Your task to perform on an android device: Open the phone app and click the voicemail tab. Image 0: 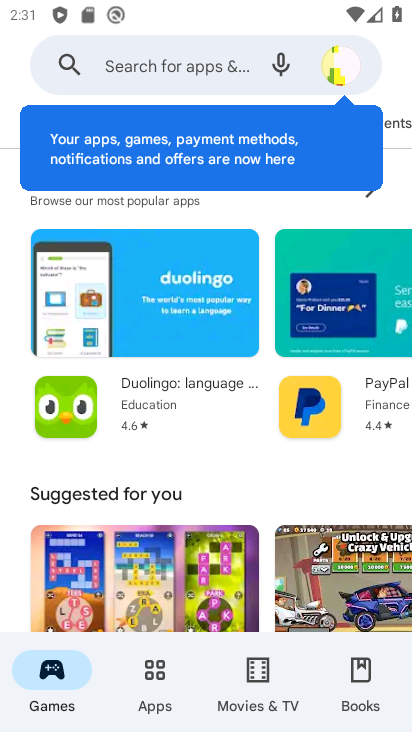
Step 0: press home button
Your task to perform on an android device: Open the phone app and click the voicemail tab. Image 1: 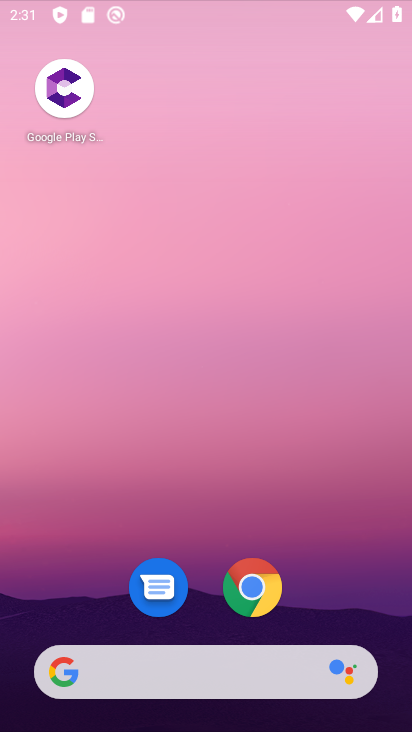
Step 1: drag from (250, 657) to (294, 85)
Your task to perform on an android device: Open the phone app and click the voicemail tab. Image 2: 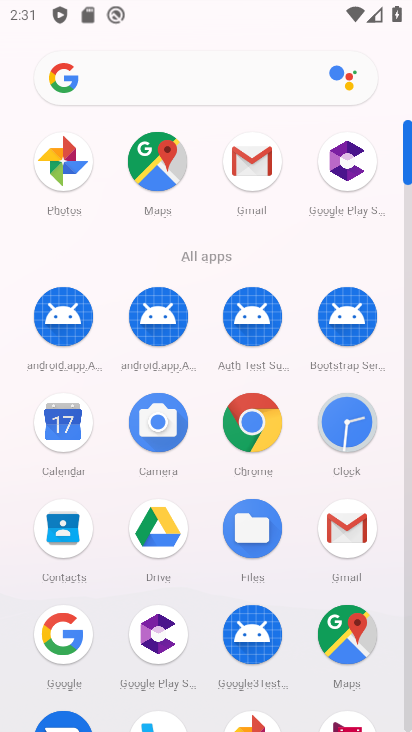
Step 2: drag from (191, 628) to (242, 278)
Your task to perform on an android device: Open the phone app and click the voicemail tab. Image 3: 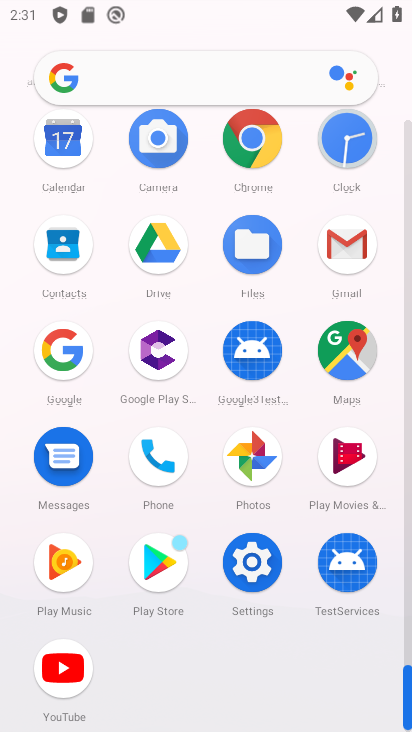
Step 3: click (156, 463)
Your task to perform on an android device: Open the phone app and click the voicemail tab. Image 4: 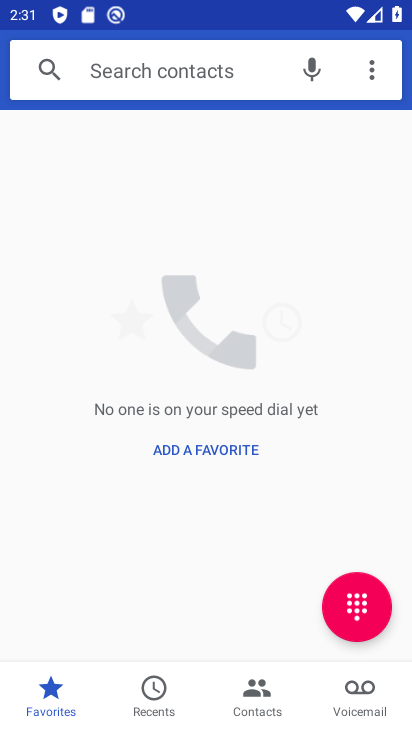
Step 4: click (350, 692)
Your task to perform on an android device: Open the phone app and click the voicemail tab. Image 5: 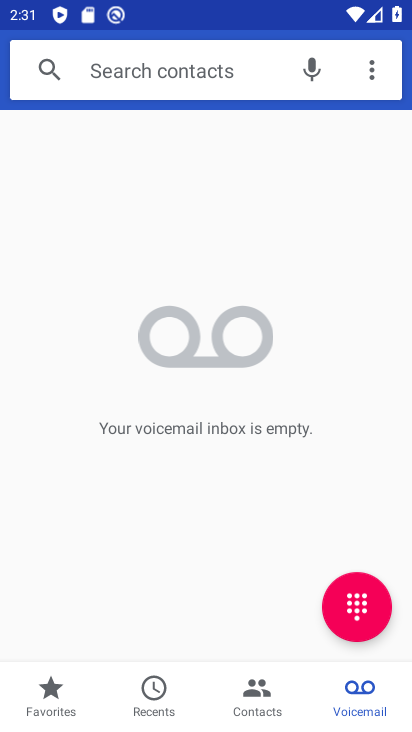
Step 5: task complete